Your task to perform on an android device: Search for logitech g933 on ebay.com, select the first entry, and add it to the cart. Image 0: 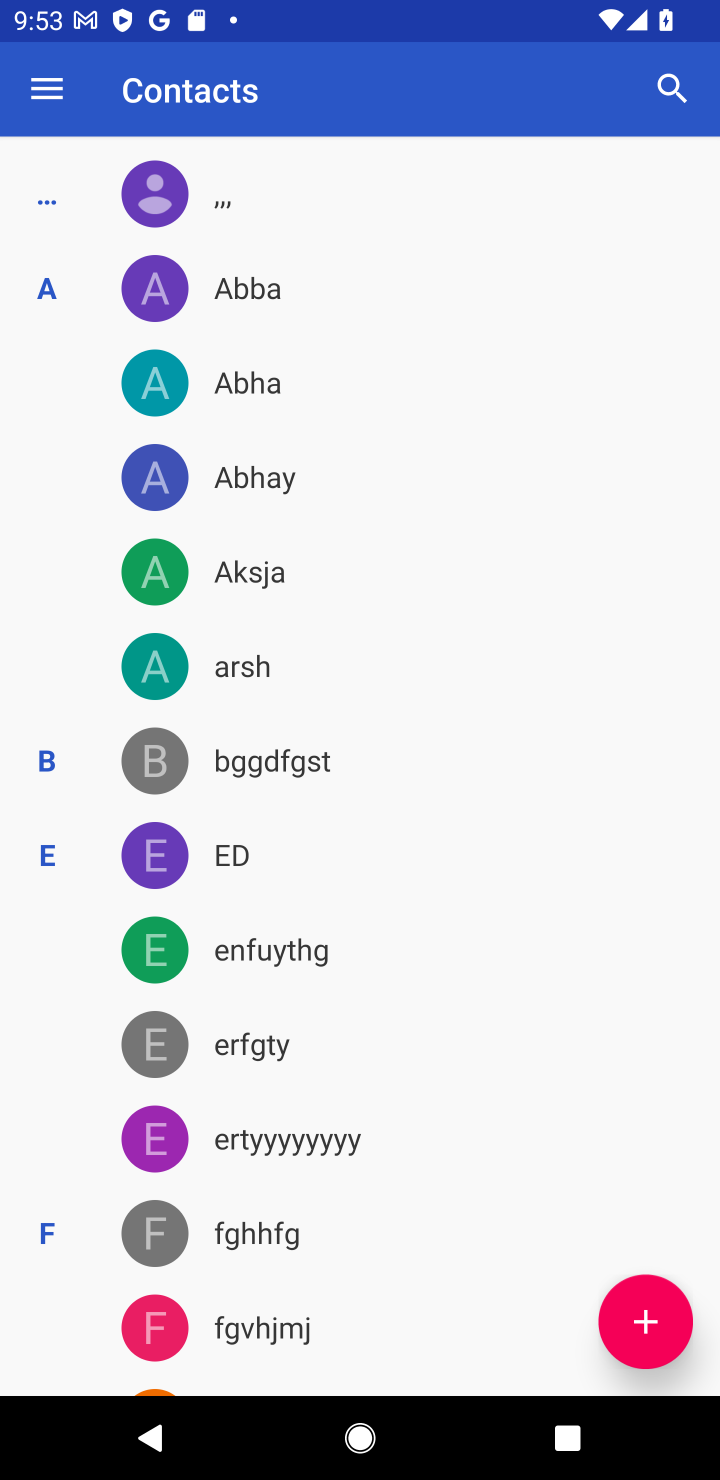
Step 0: press home button
Your task to perform on an android device: Search for logitech g933 on ebay.com, select the first entry, and add it to the cart. Image 1: 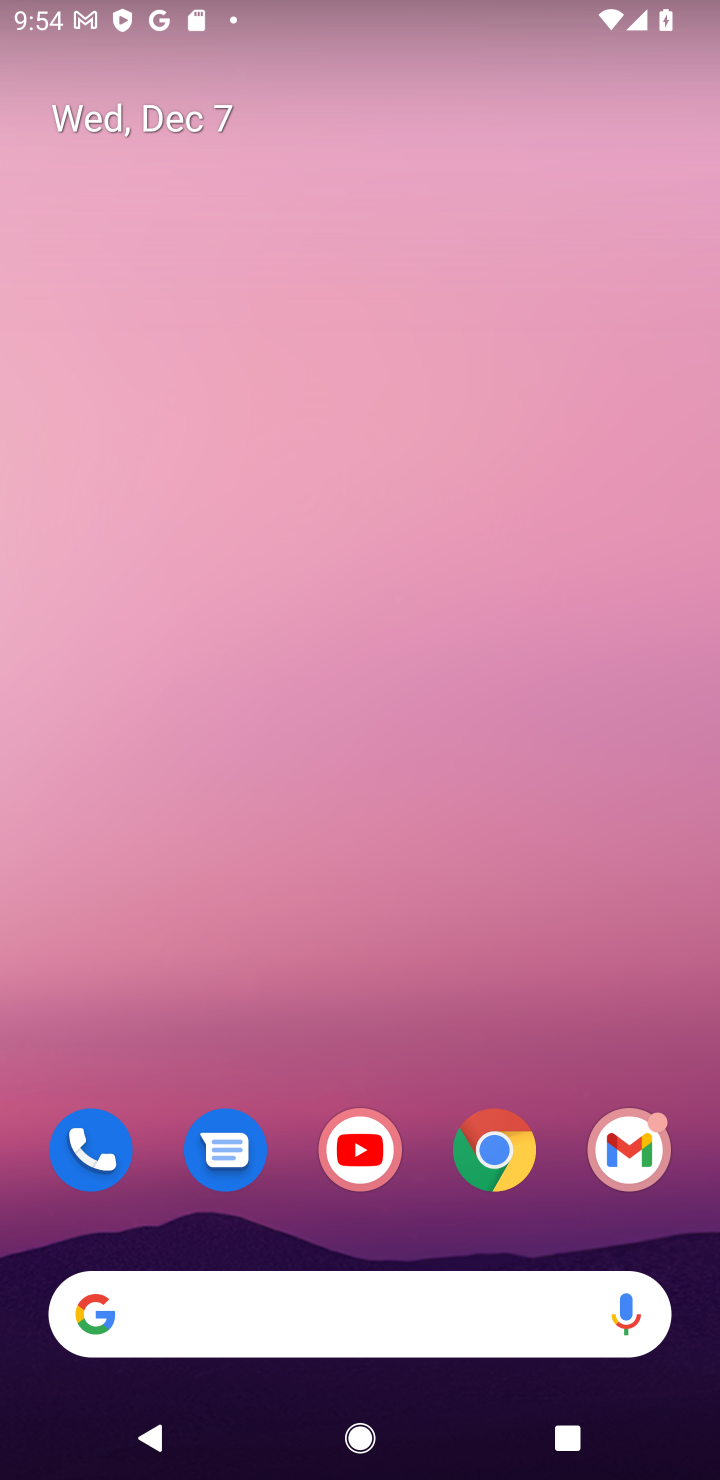
Step 1: click (499, 1134)
Your task to perform on an android device: Search for logitech g933 on ebay.com, select the first entry, and add it to the cart. Image 2: 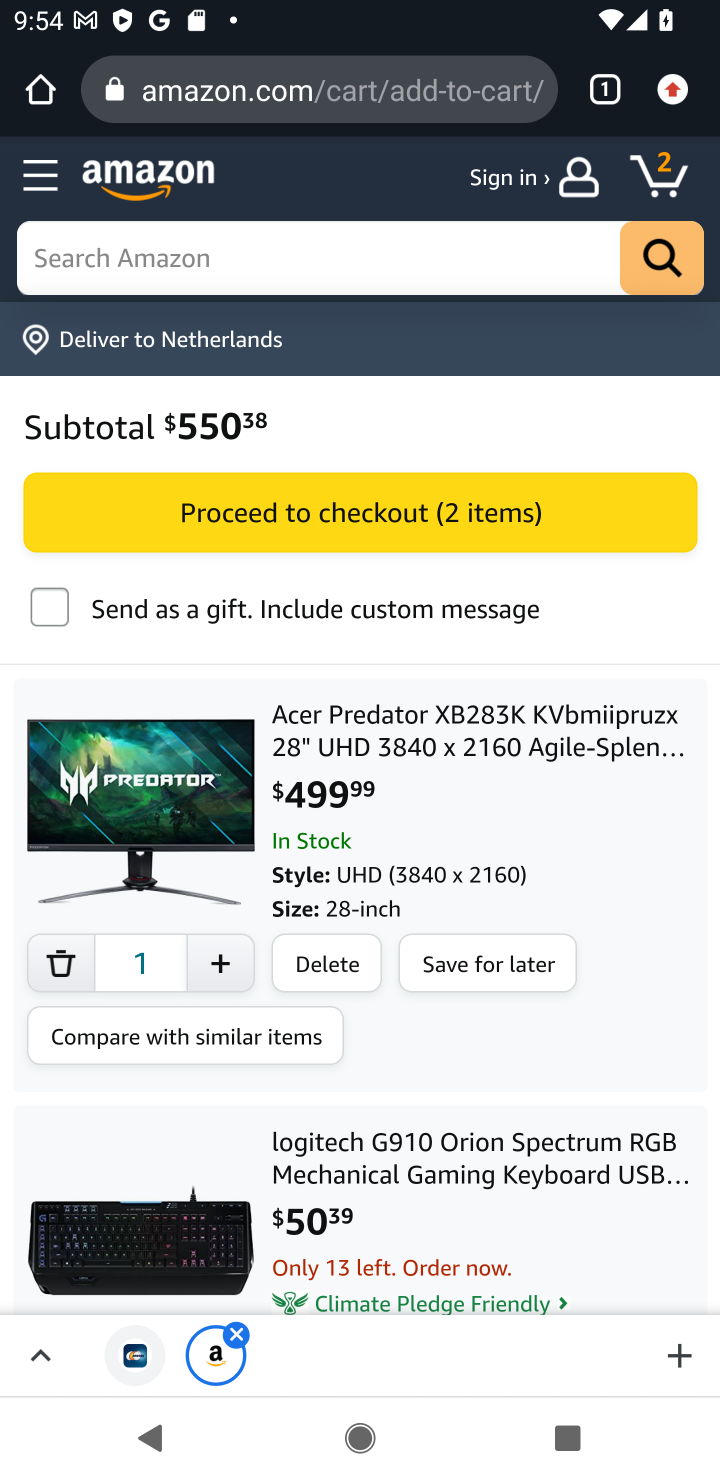
Step 2: click (363, 77)
Your task to perform on an android device: Search for logitech g933 on ebay.com, select the first entry, and add it to the cart. Image 3: 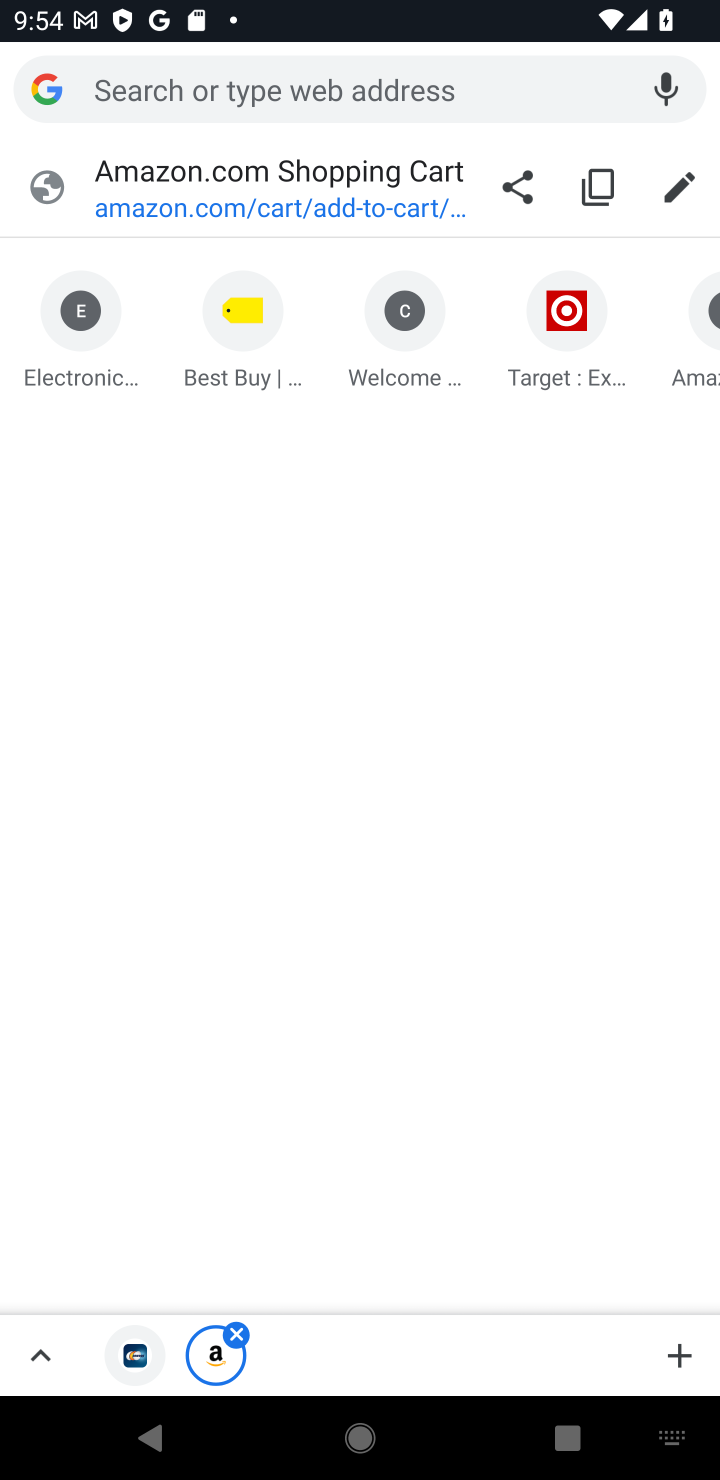
Step 3: click (417, 83)
Your task to perform on an android device: Search for logitech g933 on ebay.com, select the first entry, and add it to the cart. Image 4: 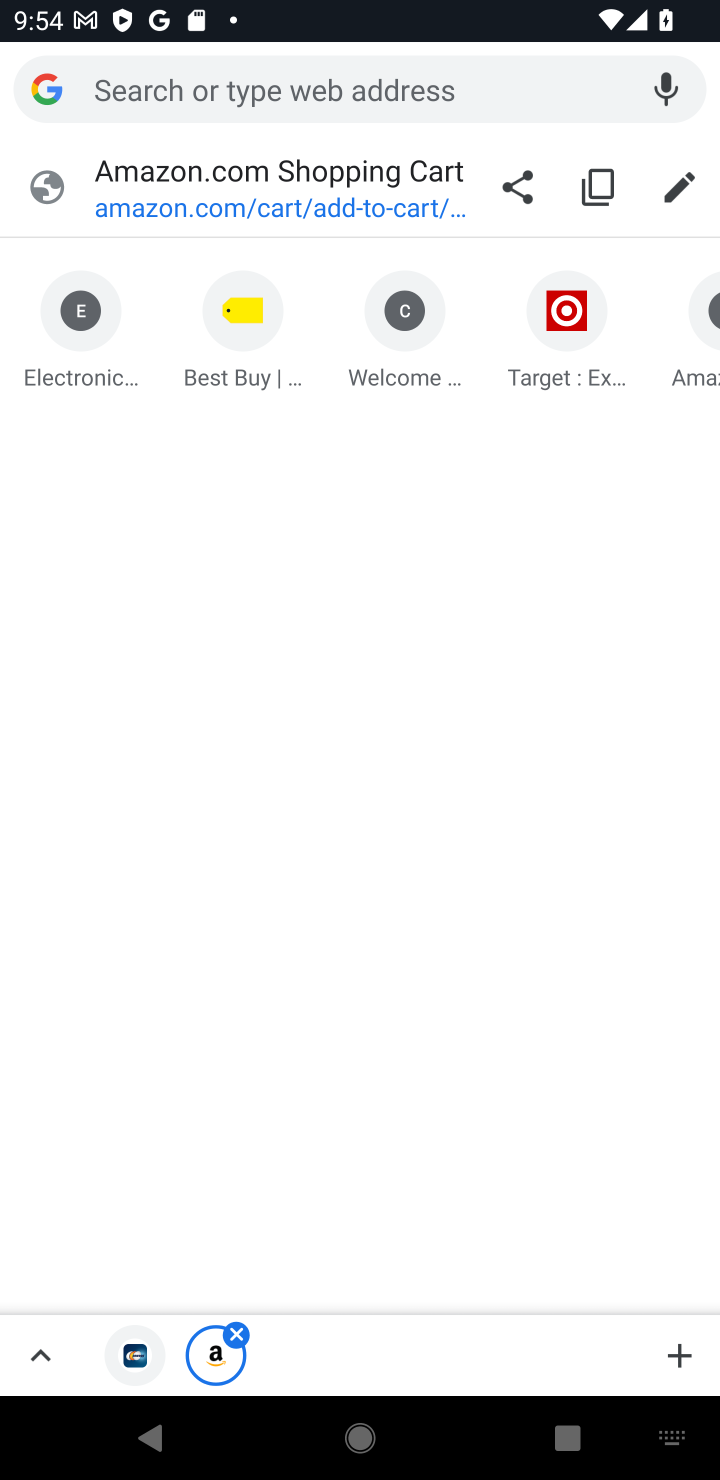
Step 4: type " ebay.com"
Your task to perform on an android device: Search for logitech g933 on ebay.com, select the first entry, and add it to the cart. Image 5: 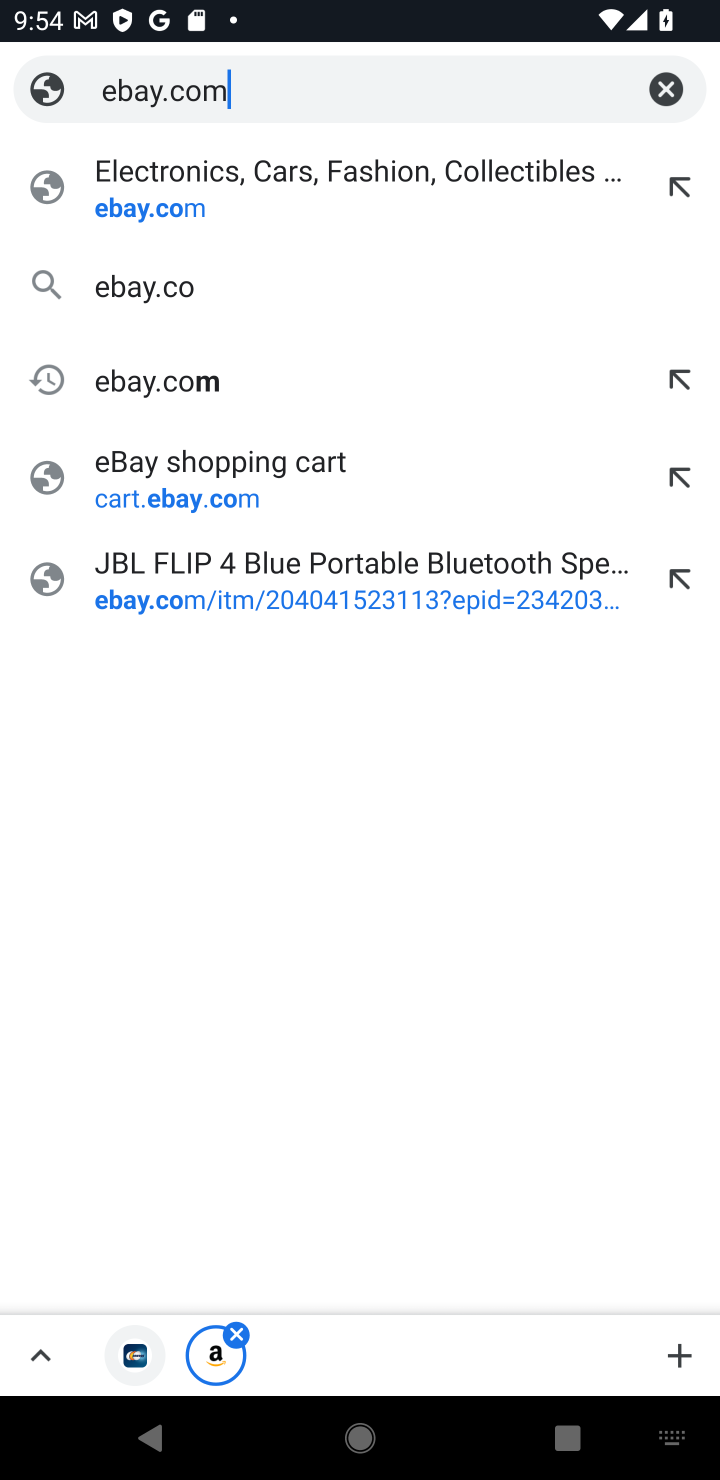
Step 5: press enter
Your task to perform on an android device: Search for logitech g933 on ebay.com, select the first entry, and add it to the cart. Image 6: 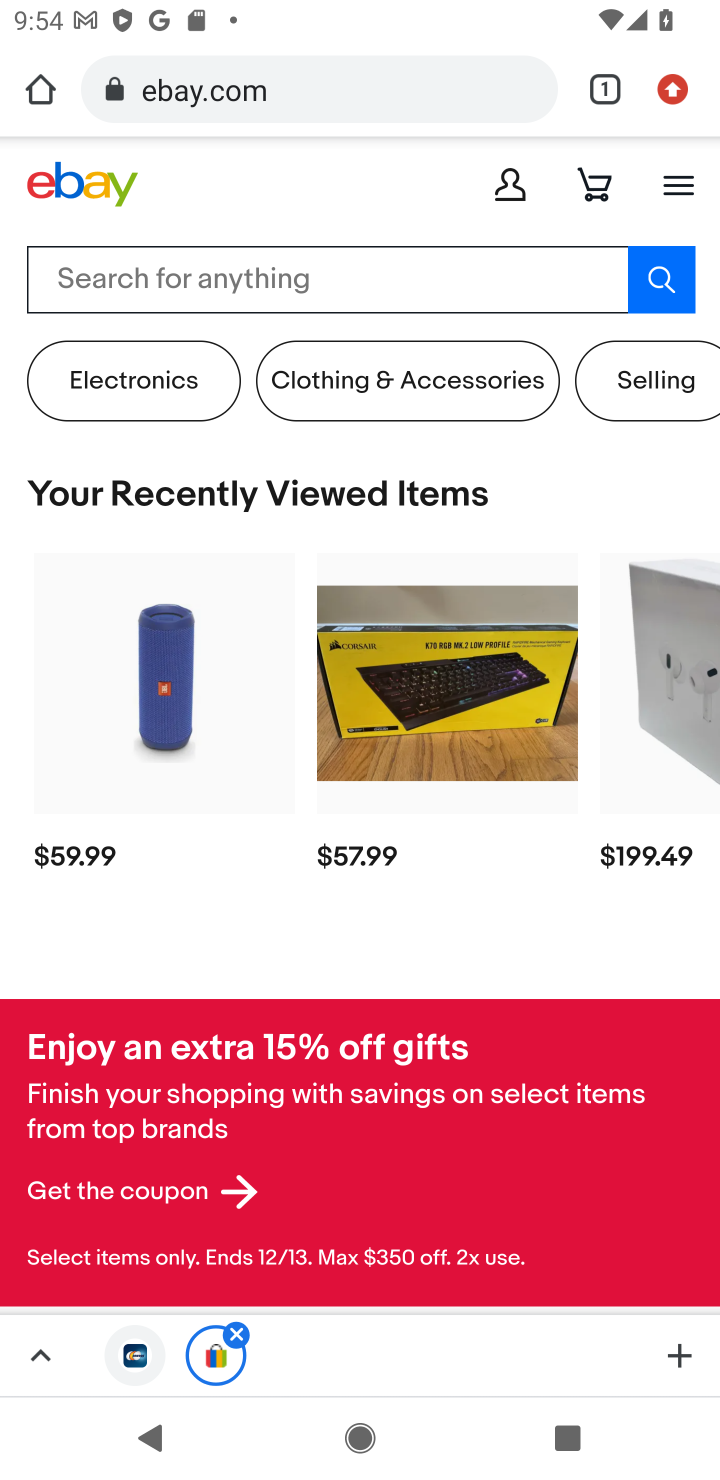
Step 6: click (337, 268)
Your task to perform on an android device: Search for logitech g933 on ebay.com, select the first entry, and add it to the cart. Image 7: 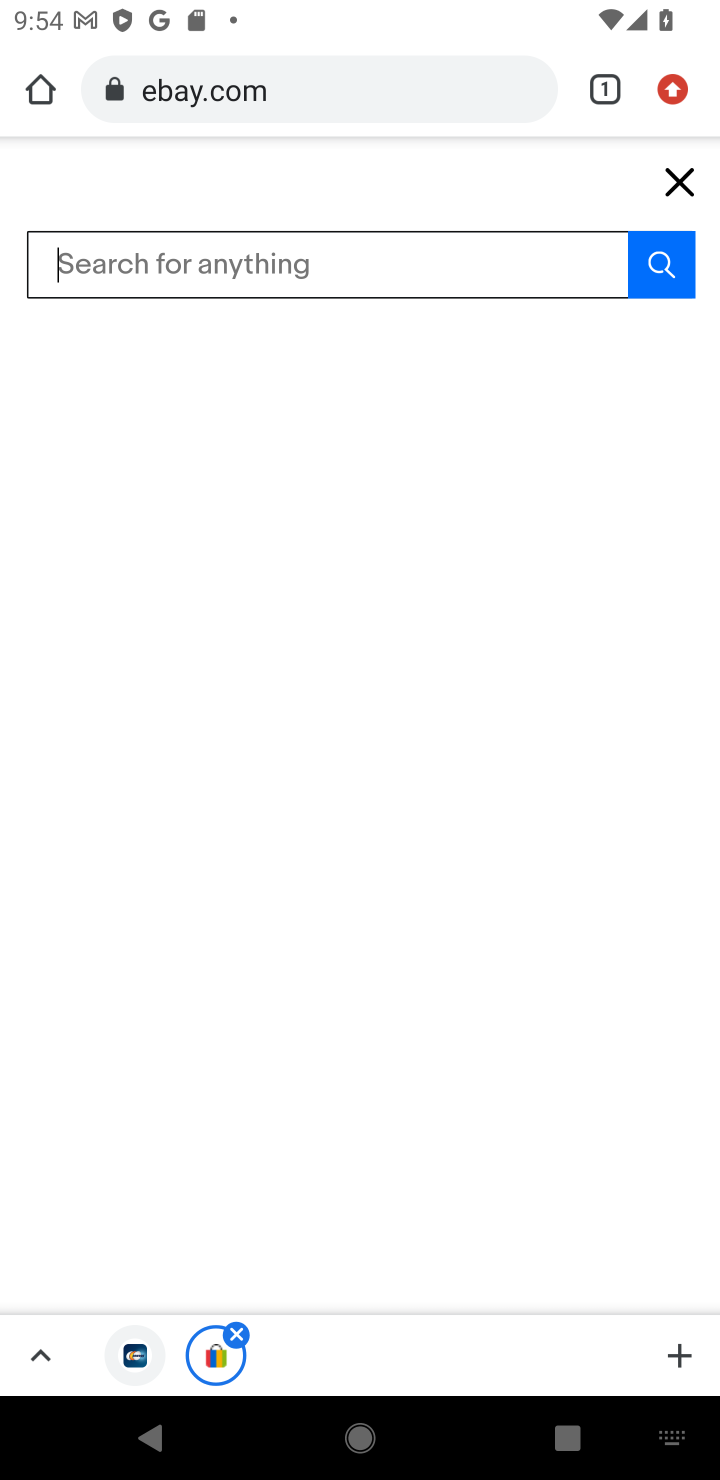
Step 7: type "logitech g933 "
Your task to perform on an android device: Search for logitech g933 on ebay.com, select the first entry, and add it to the cart. Image 8: 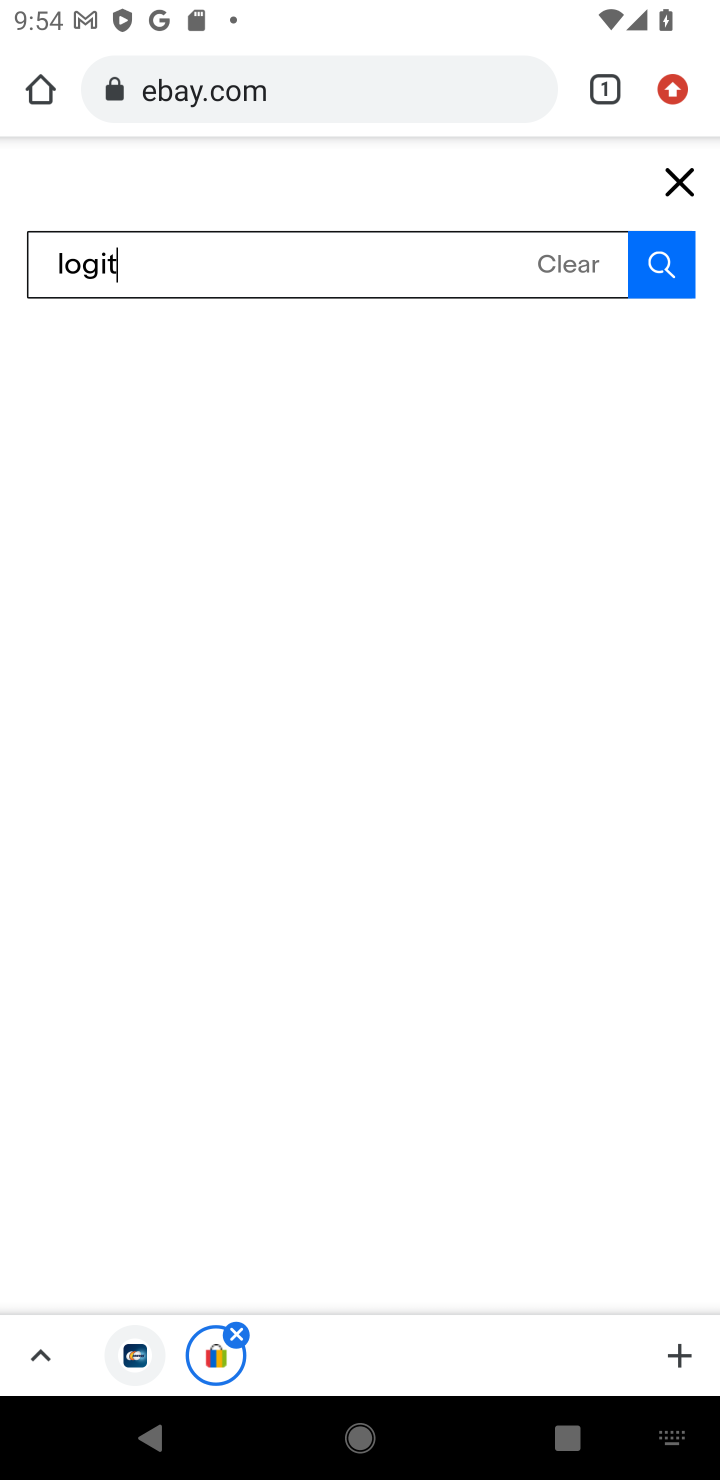
Step 8: press enter
Your task to perform on an android device: Search for logitech g933 on ebay.com, select the first entry, and add it to the cart. Image 9: 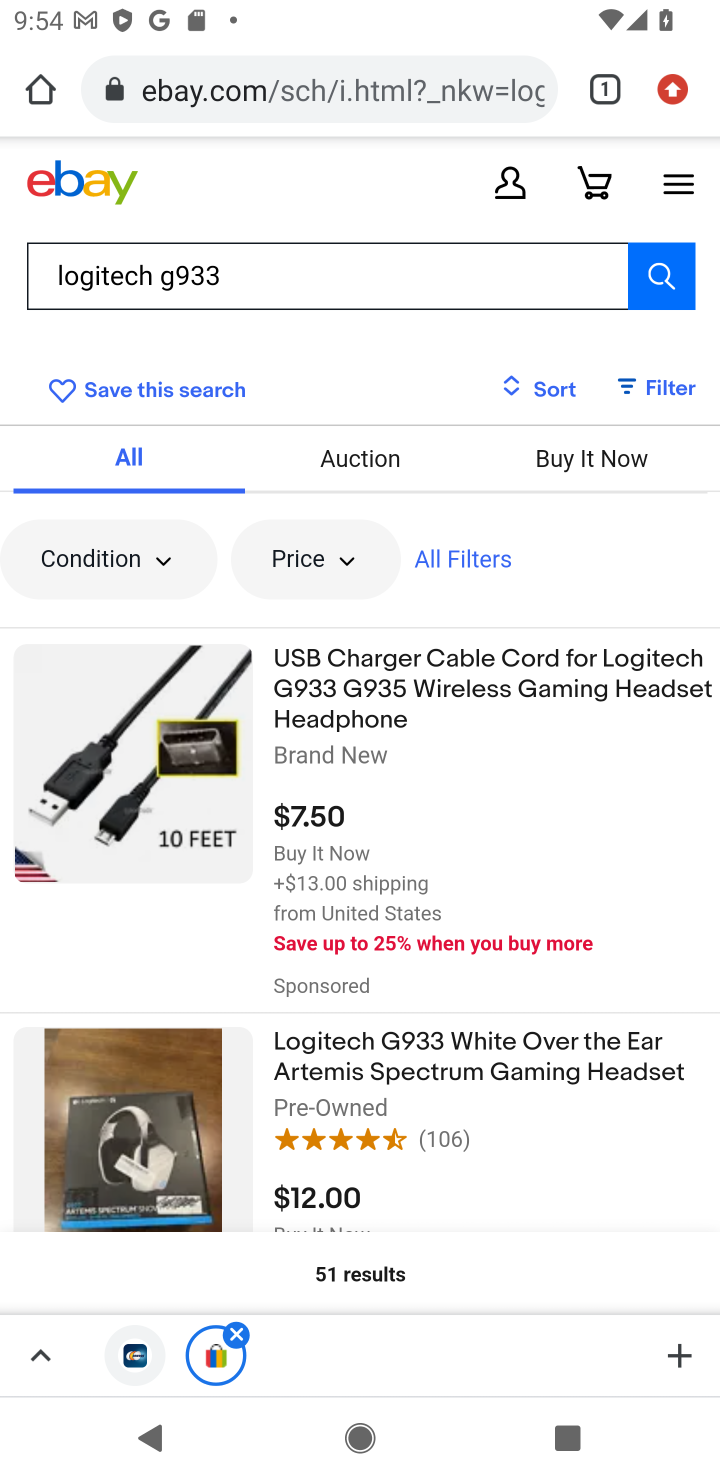
Step 9: click (99, 750)
Your task to perform on an android device: Search for logitech g933 on ebay.com, select the first entry, and add it to the cart. Image 10: 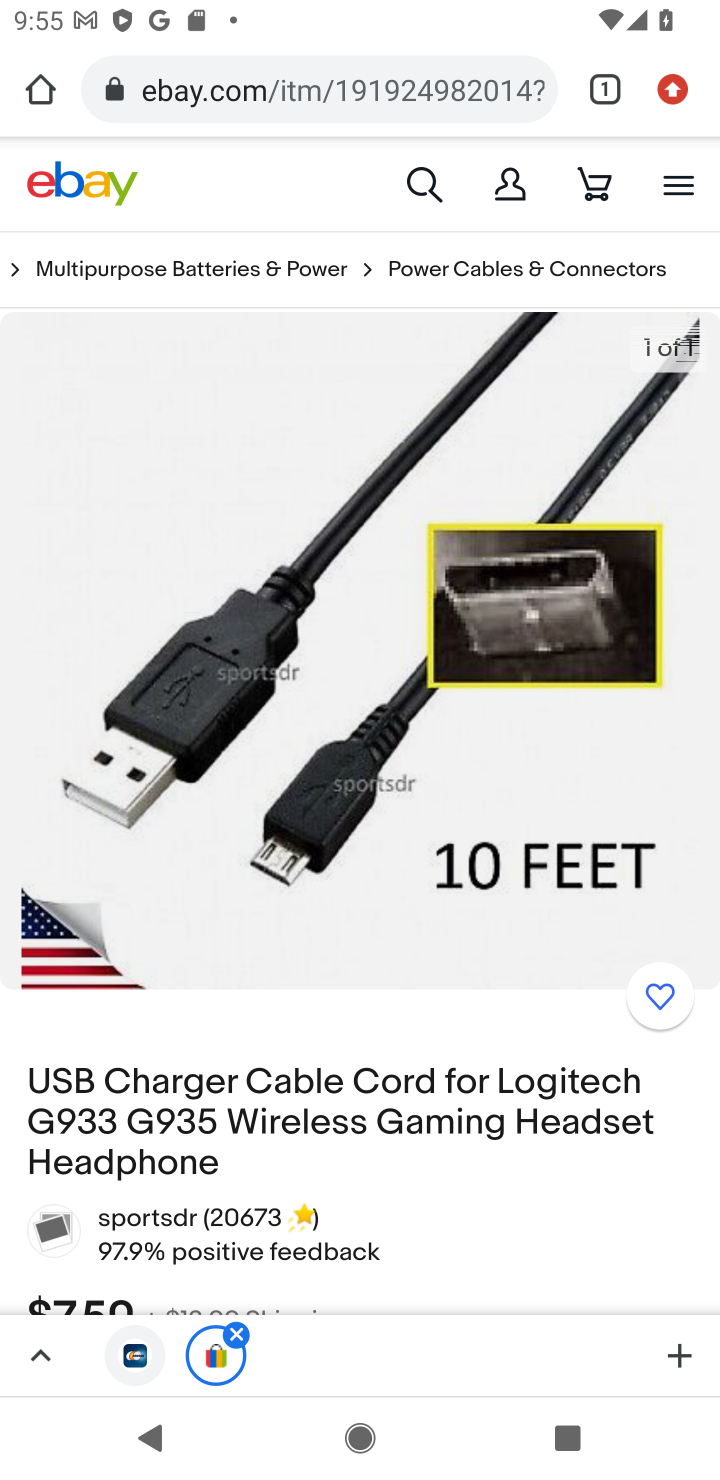
Step 10: drag from (489, 1059) to (566, 253)
Your task to perform on an android device: Search for logitech g933 on ebay.com, select the first entry, and add it to the cart. Image 11: 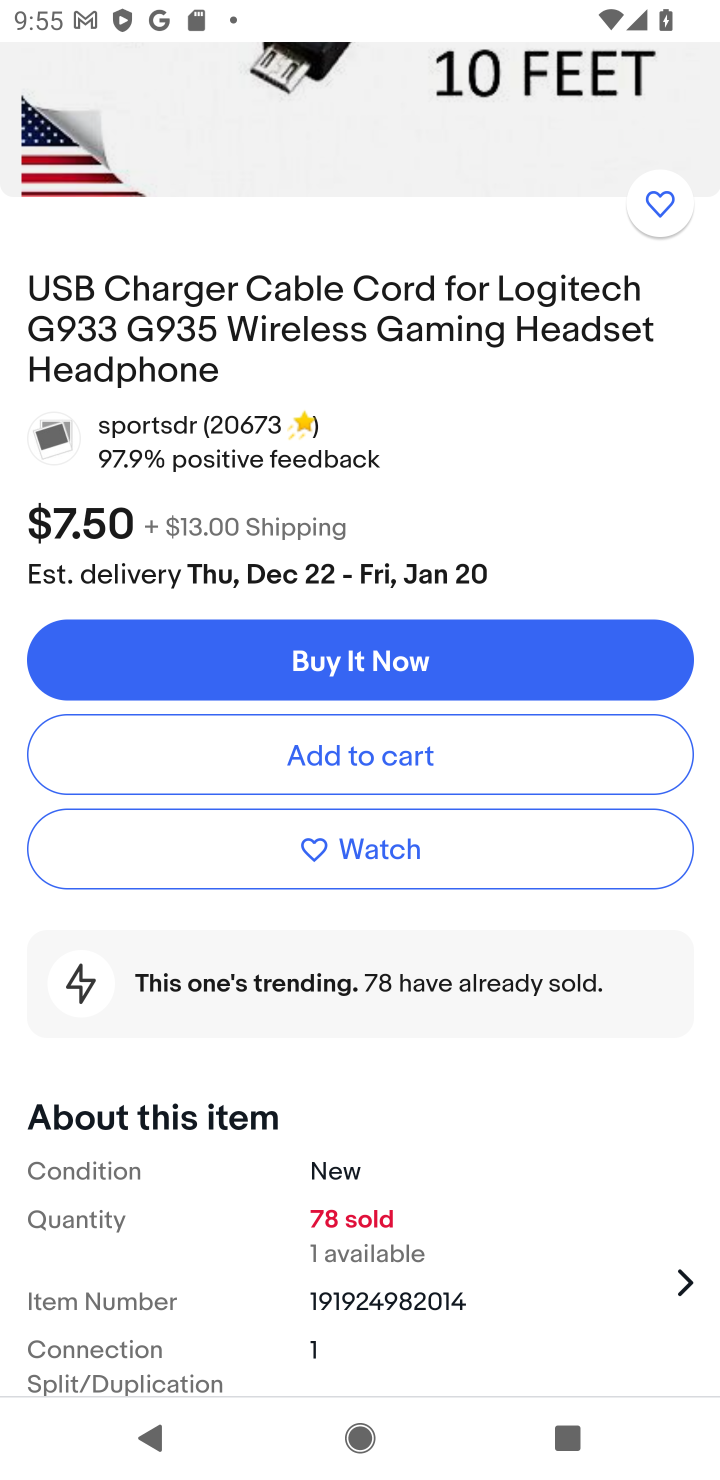
Step 11: click (369, 767)
Your task to perform on an android device: Search for logitech g933 on ebay.com, select the first entry, and add it to the cart. Image 12: 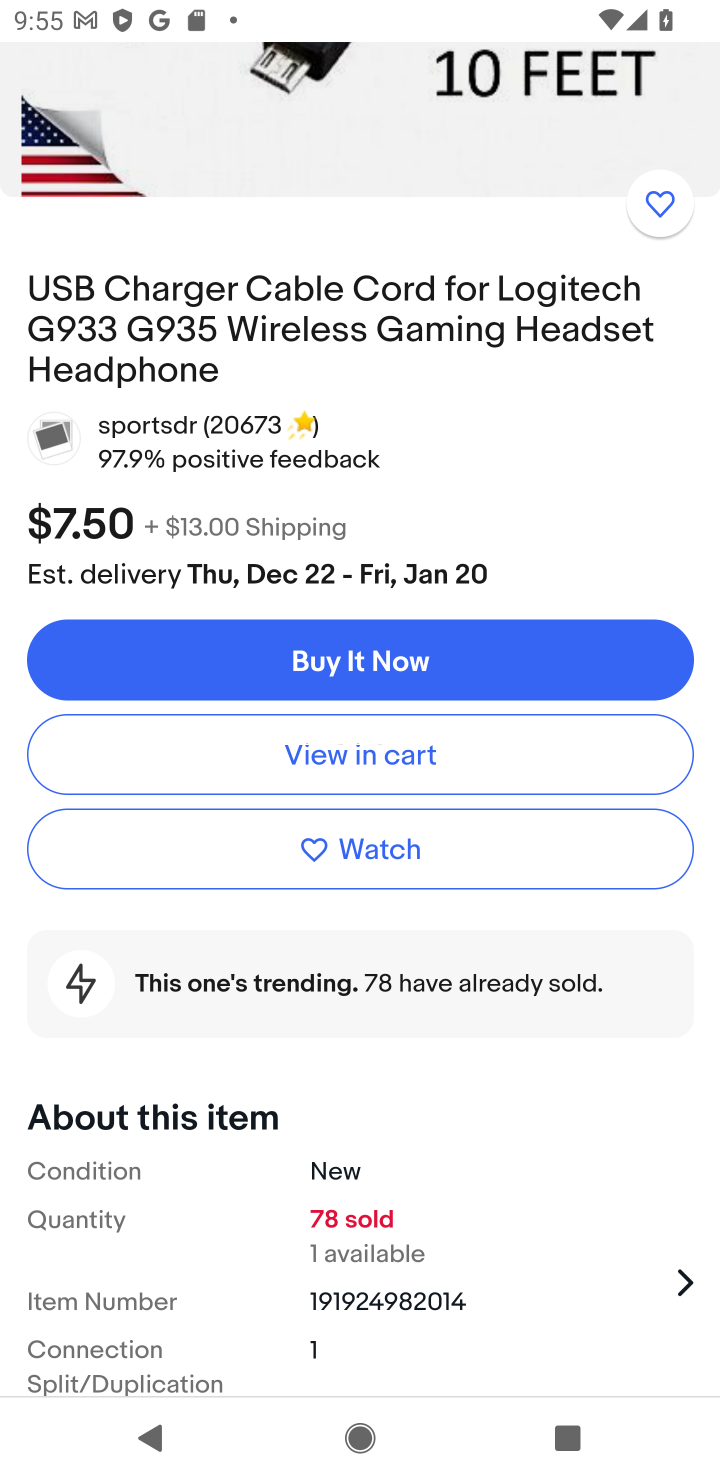
Step 12: click (370, 761)
Your task to perform on an android device: Search for logitech g933 on ebay.com, select the first entry, and add it to the cart. Image 13: 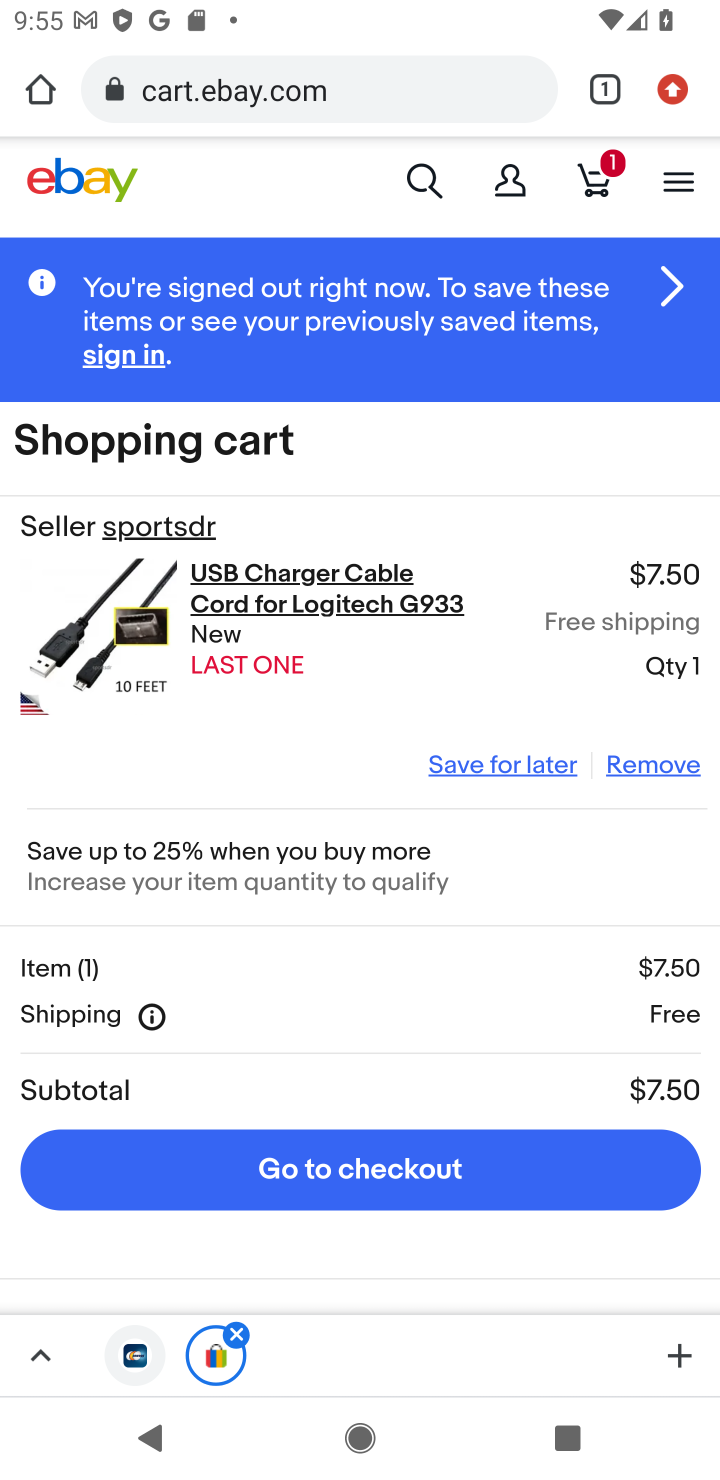
Step 13: task complete